Your task to perform on an android device: turn off translation in the chrome app Image 0: 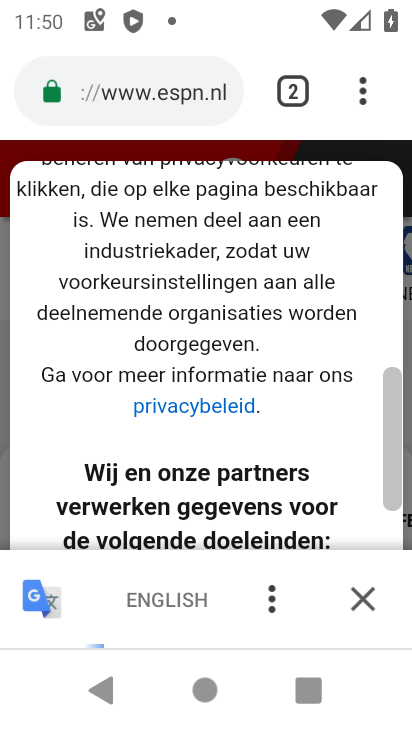
Step 0: press home button
Your task to perform on an android device: turn off translation in the chrome app Image 1: 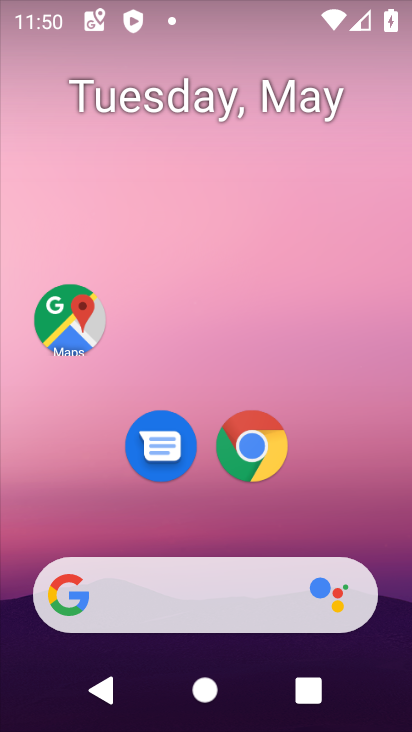
Step 1: click (260, 450)
Your task to perform on an android device: turn off translation in the chrome app Image 2: 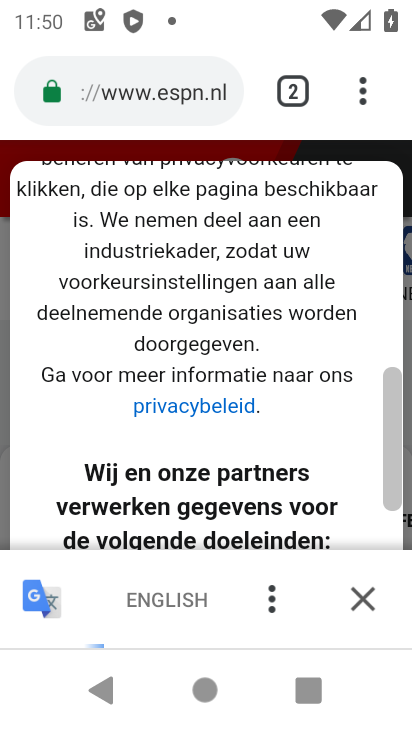
Step 2: click (362, 98)
Your task to perform on an android device: turn off translation in the chrome app Image 3: 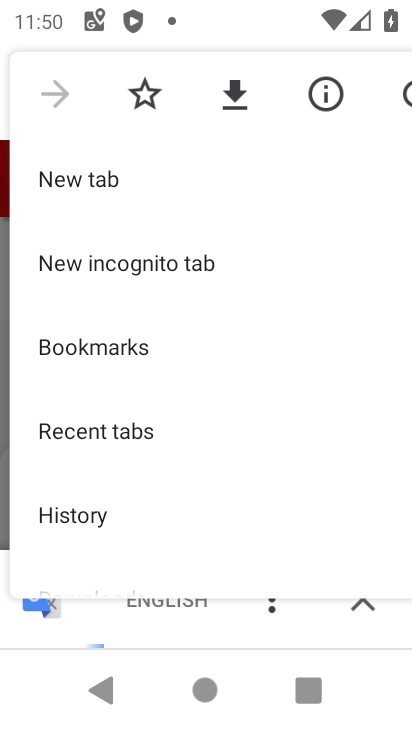
Step 3: drag from (109, 523) to (115, 174)
Your task to perform on an android device: turn off translation in the chrome app Image 4: 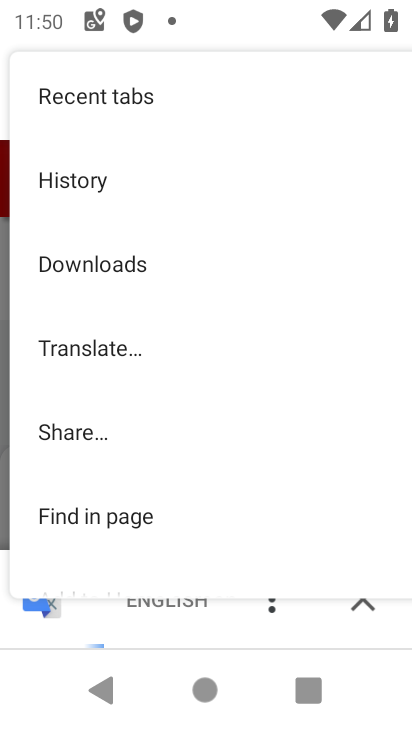
Step 4: drag from (120, 528) to (152, 117)
Your task to perform on an android device: turn off translation in the chrome app Image 5: 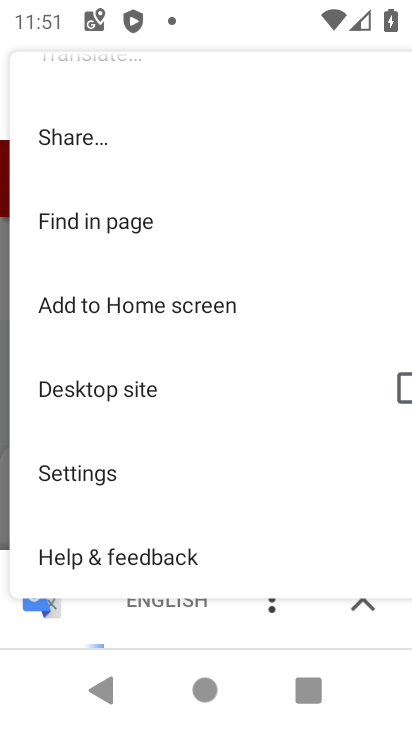
Step 5: click (109, 472)
Your task to perform on an android device: turn off translation in the chrome app Image 6: 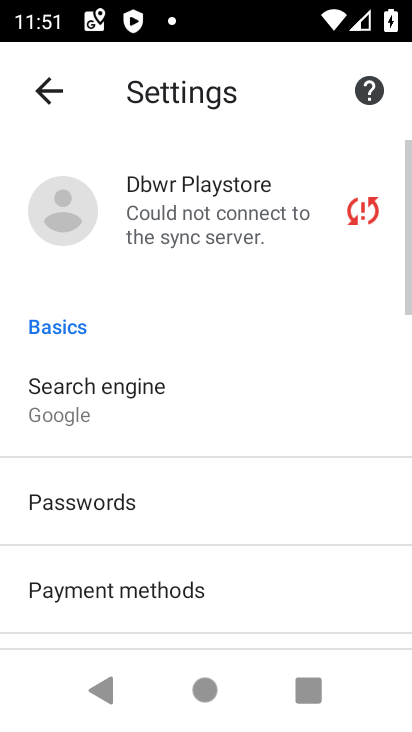
Step 6: drag from (149, 498) to (152, 248)
Your task to perform on an android device: turn off translation in the chrome app Image 7: 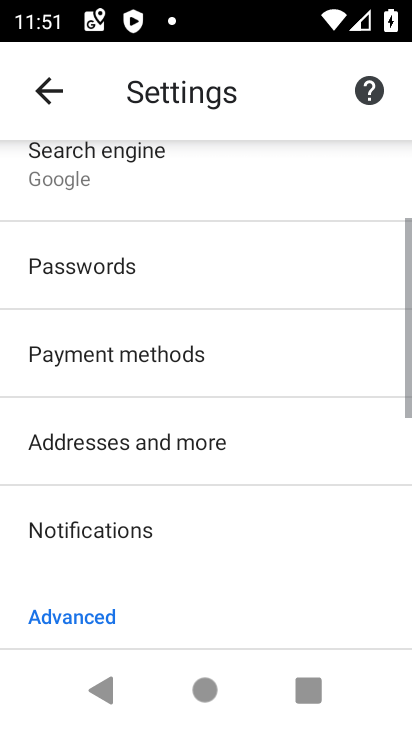
Step 7: drag from (155, 620) to (156, 330)
Your task to perform on an android device: turn off translation in the chrome app Image 8: 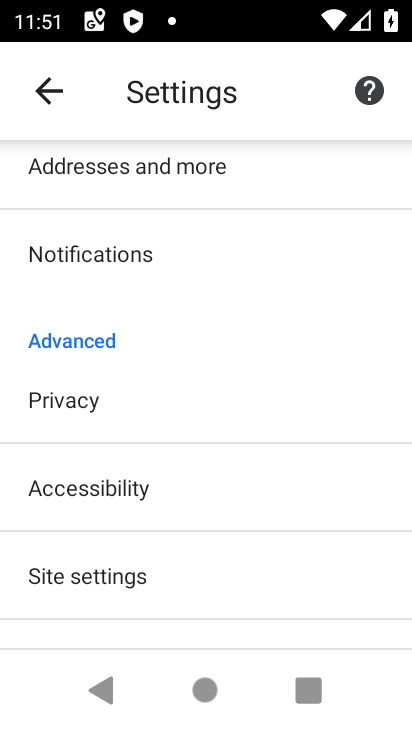
Step 8: drag from (97, 577) to (119, 220)
Your task to perform on an android device: turn off translation in the chrome app Image 9: 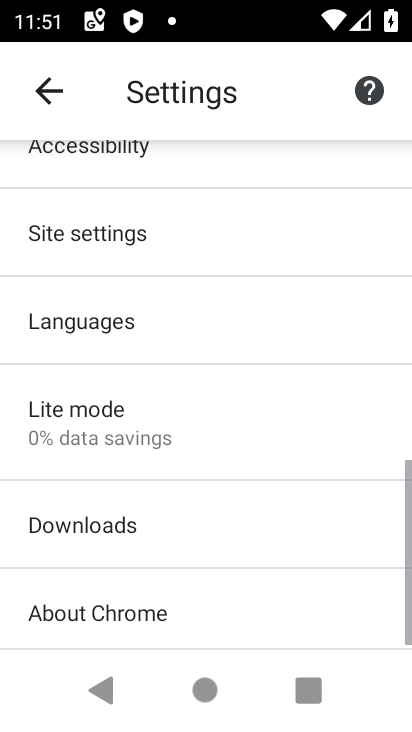
Step 9: click (108, 316)
Your task to perform on an android device: turn off translation in the chrome app Image 10: 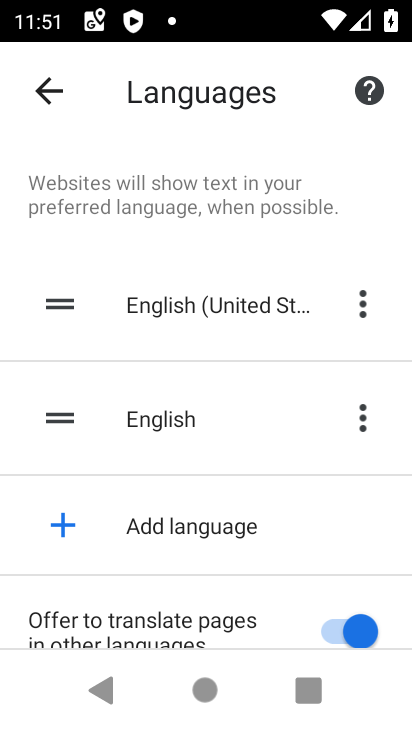
Step 10: drag from (277, 616) to (265, 355)
Your task to perform on an android device: turn off translation in the chrome app Image 11: 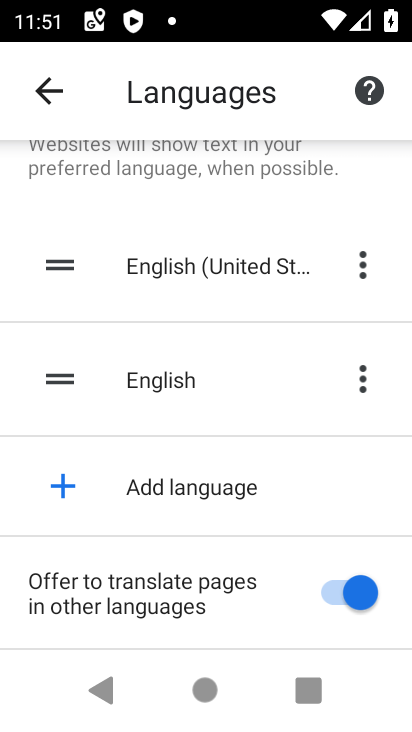
Step 11: click (334, 594)
Your task to perform on an android device: turn off translation in the chrome app Image 12: 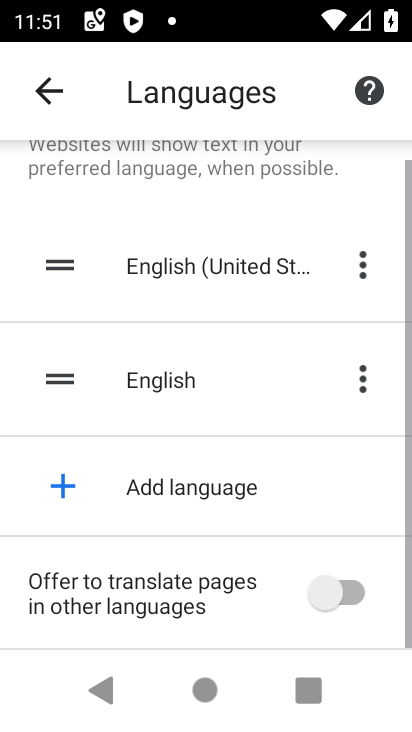
Step 12: task complete